Your task to perform on an android device: allow cookies in the chrome app Image 0: 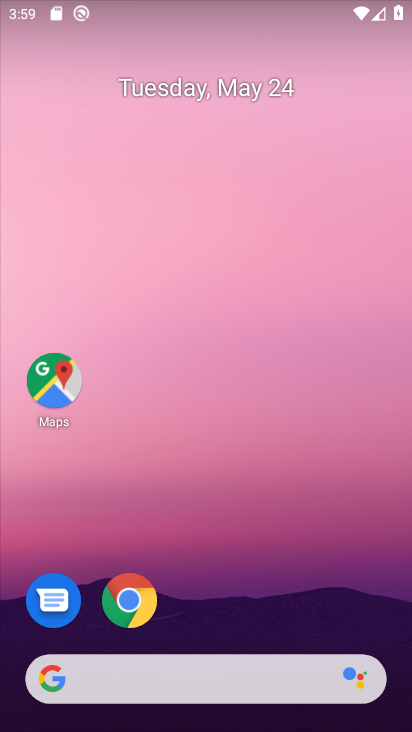
Step 0: drag from (276, 659) to (288, 8)
Your task to perform on an android device: allow cookies in the chrome app Image 1: 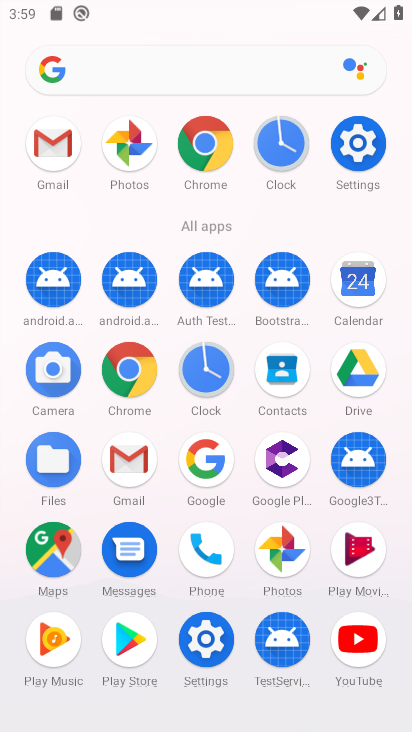
Step 1: click (127, 353)
Your task to perform on an android device: allow cookies in the chrome app Image 2: 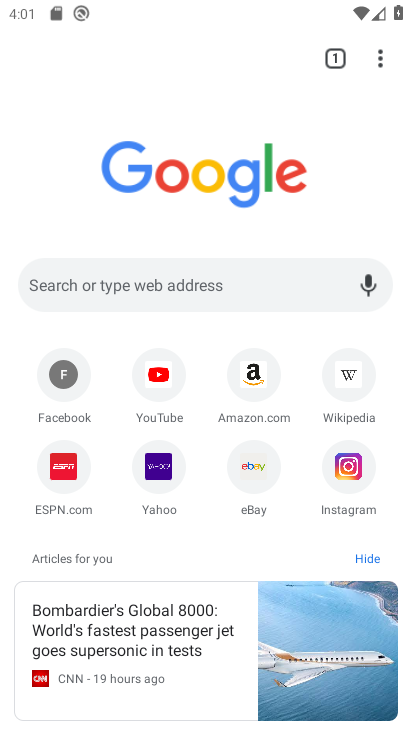
Step 2: click (382, 62)
Your task to perform on an android device: allow cookies in the chrome app Image 3: 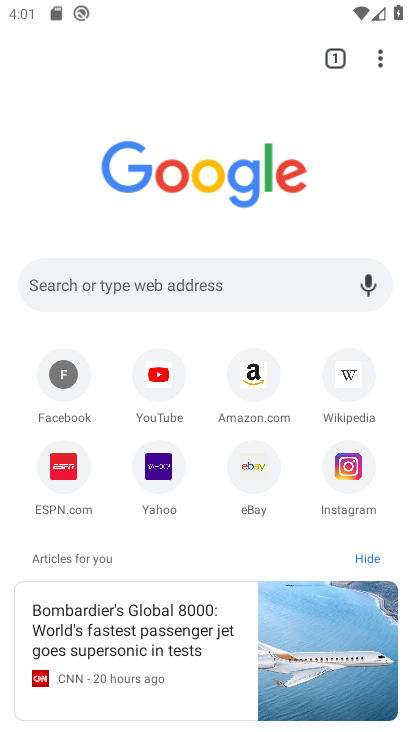
Step 3: drag from (383, 57) to (181, 486)
Your task to perform on an android device: allow cookies in the chrome app Image 4: 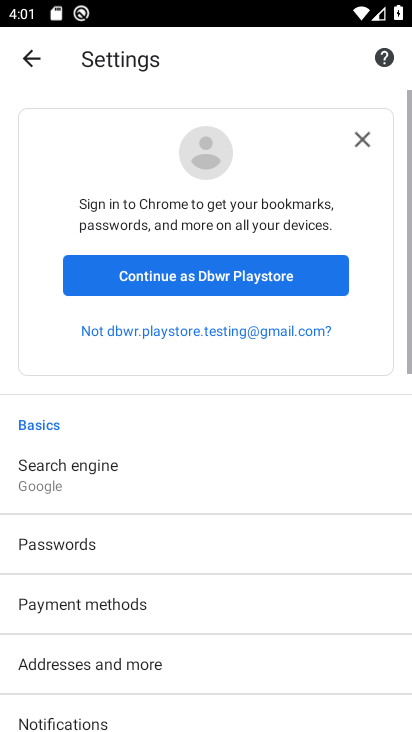
Step 4: drag from (222, 702) to (199, 60)
Your task to perform on an android device: allow cookies in the chrome app Image 5: 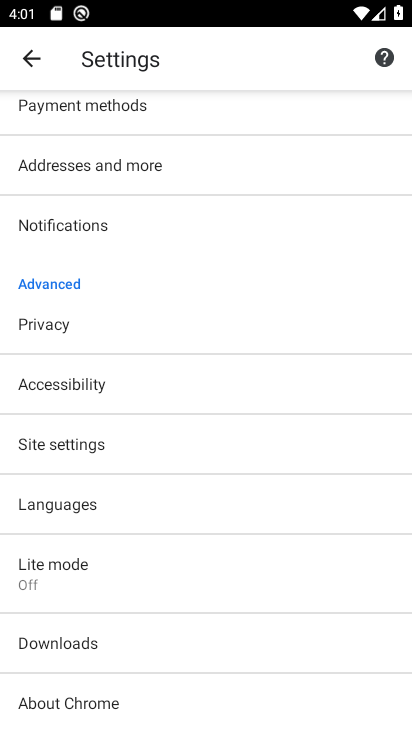
Step 5: click (144, 423)
Your task to perform on an android device: allow cookies in the chrome app Image 6: 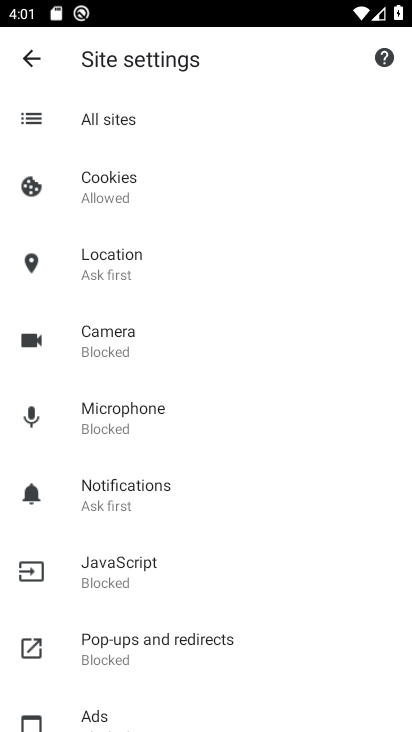
Step 6: click (107, 180)
Your task to perform on an android device: allow cookies in the chrome app Image 7: 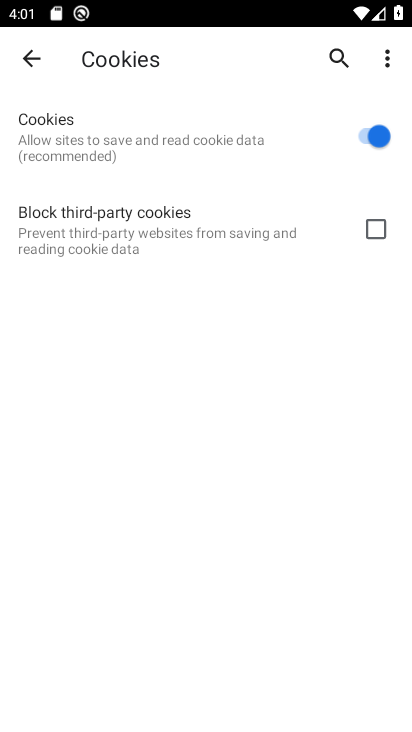
Step 7: task complete